Your task to perform on an android device: turn notification dots on Image 0: 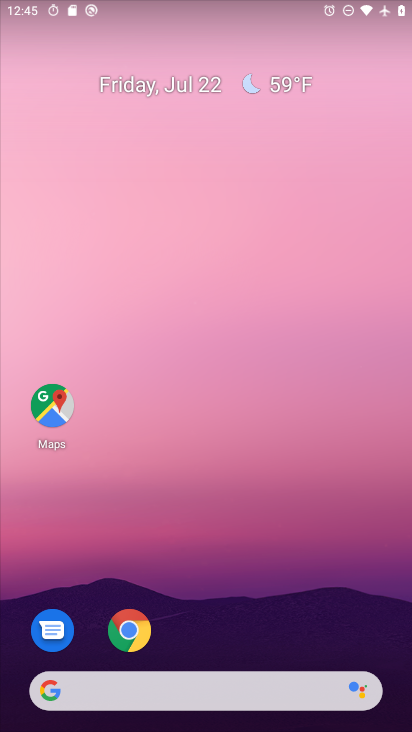
Step 0: press home button
Your task to perform on an android device: turn notification dots on Image 1: 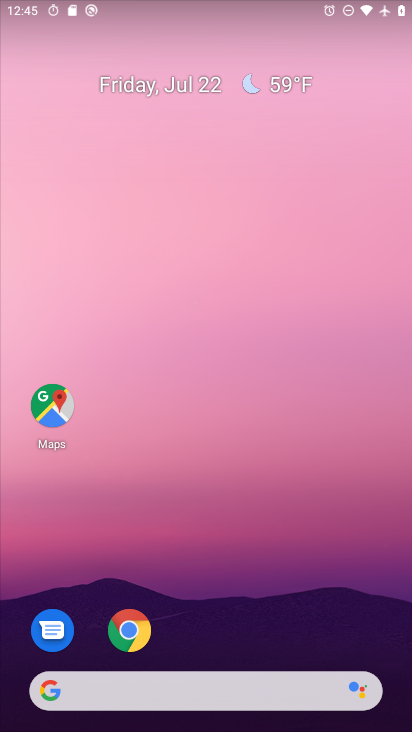
Step 1: drag from (241, 629) to (364, 112)
Your task to perform on an android device: turn notification dots on Image 2: 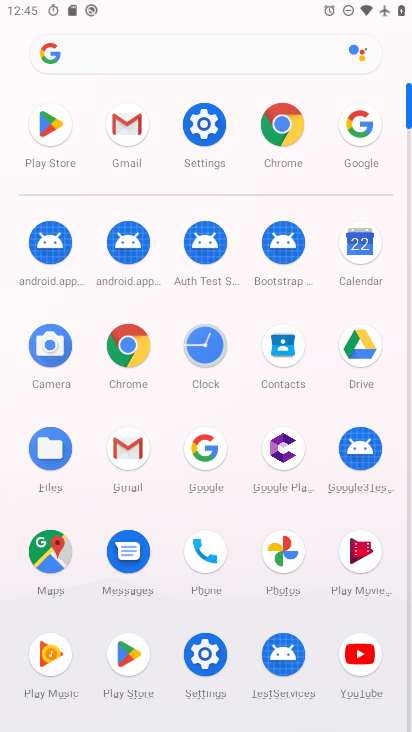
Step 2: click (204, 121)
Your task to perform on an android device: turn notification dots on Image 3: 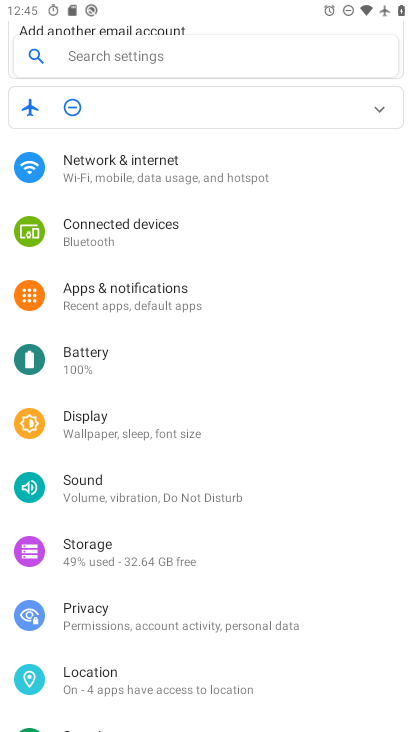
Step 3: click (93, 304)
Your task to perform on an android device: turn notification dots on Image 4: 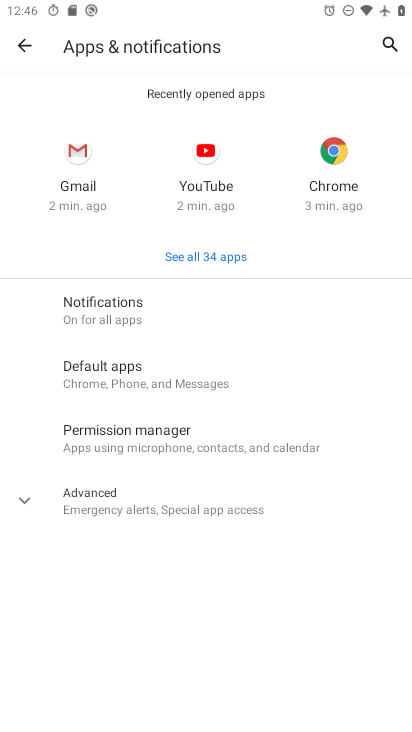
Step 4: click (92, 317)
Your task to perform on an android device: turn notification dots on Image 5: 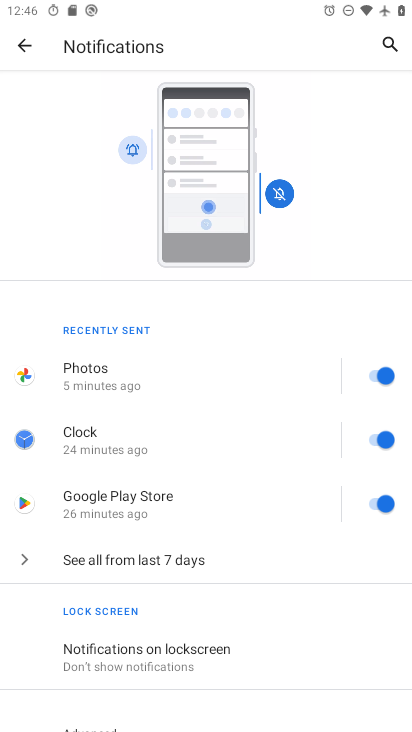
Step 5: drag from (297, 633) to (290, 319)
Your task to perform on an android device: turn notification dots on Image 6: 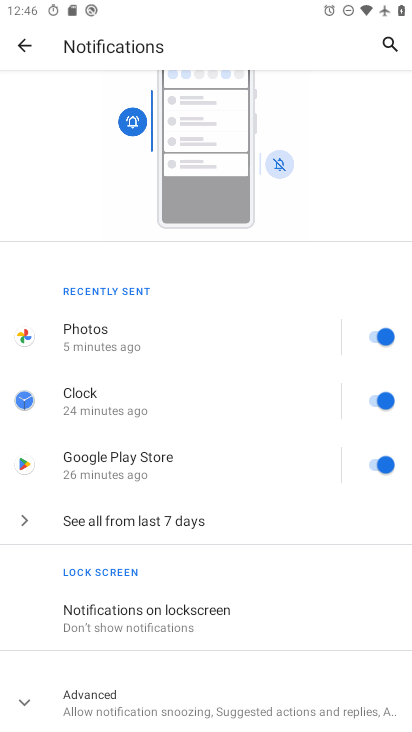
Step 6: click (73, 705)
Your task to perform on an android device: turn notification dots on Image 7: 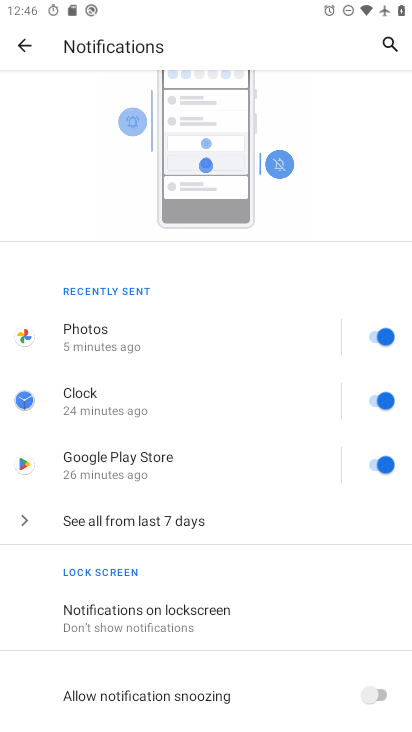
Step 7: task complete